Your task to perform on an android device: Open Chrome and go to settings Image 0: 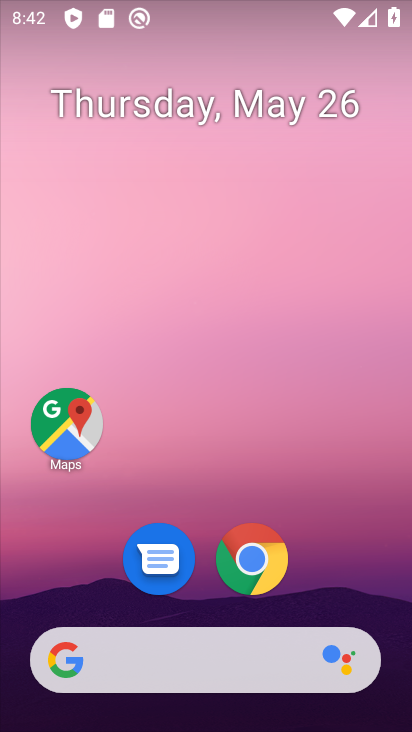
Step 0: click (253, 559)
Your task to perform on an android device: Open Chrome and go to settings Image 1: 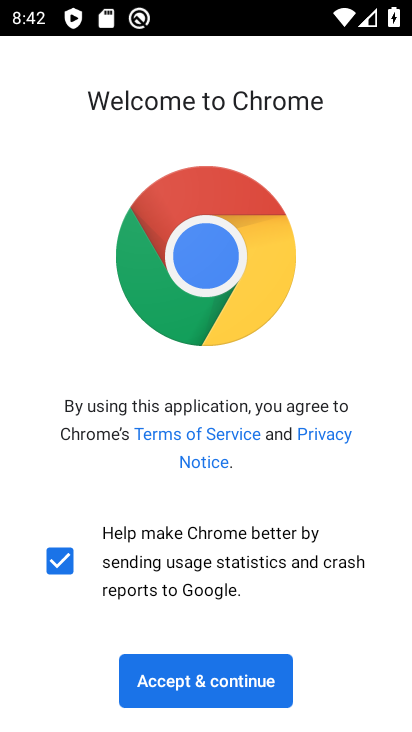
Step 1: click (234, 695)
Your task to perform on an android device: Open Chrome and go to settings Image 2: 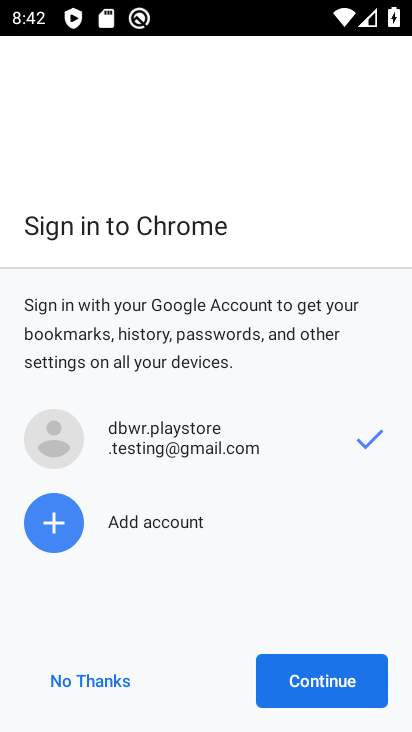
Step 2: click (289, 686)
Your task to perform on an android device: Open Chrome and go to settings Image 3: 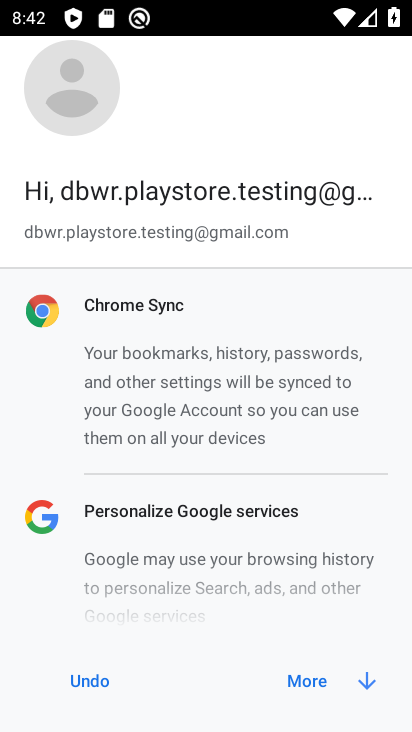
Step 3: click (289, 686)
Your task to perform on an android device: Open Chrome and go to settings Image 4: 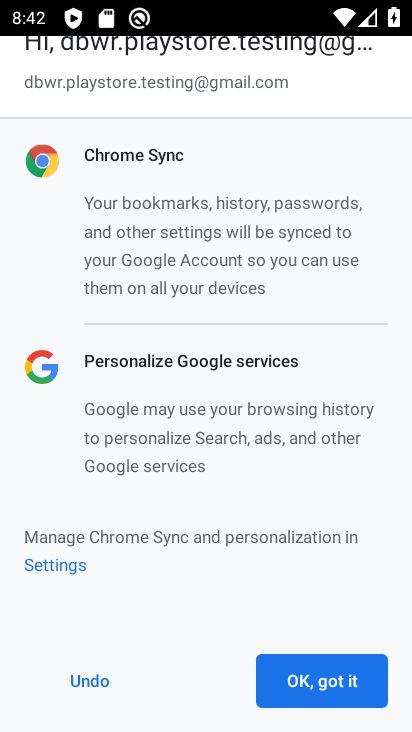
Step 4: click (289, 686)
Your task to perform on an android device: Open Chrome and go to settings Image 5: 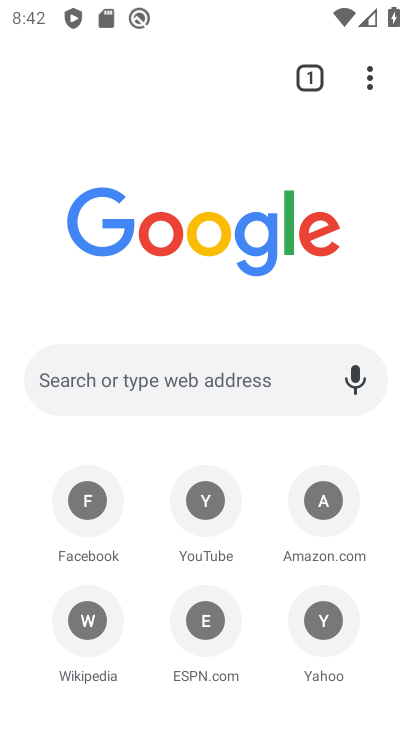
Step 5: click (362, 77)
Your task to perform on an android device: Open Chrome and go to settings Image 6: 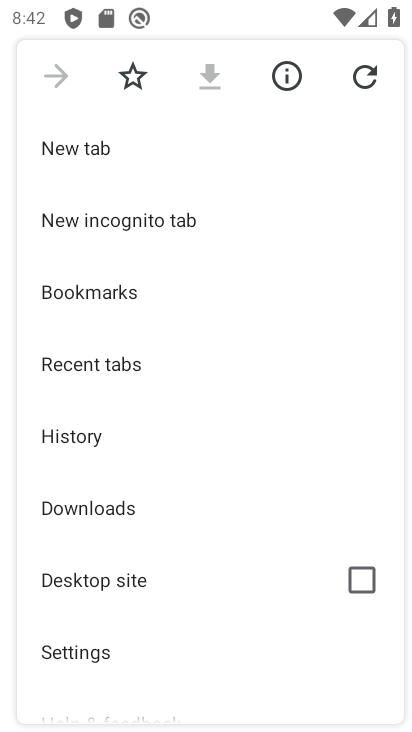
Step 6: drag from (110, 627) to (226, 347)
Your task to perform on an android device: Open Chrome and go to settings Image 7: 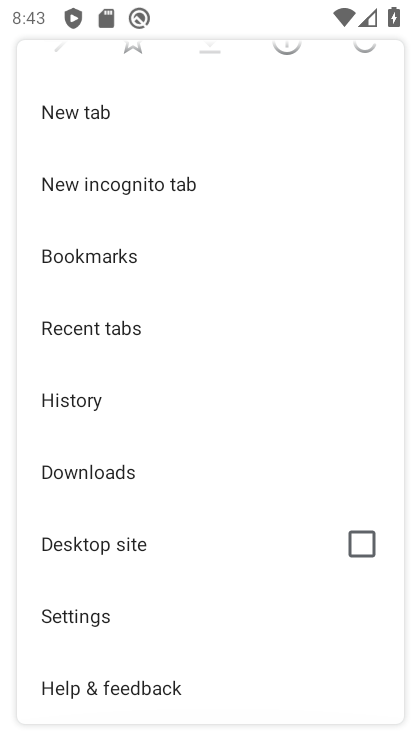
Step 7: click (95, 612)
Your task to perform on an android device: Open Chrome and go to settings Image 8: 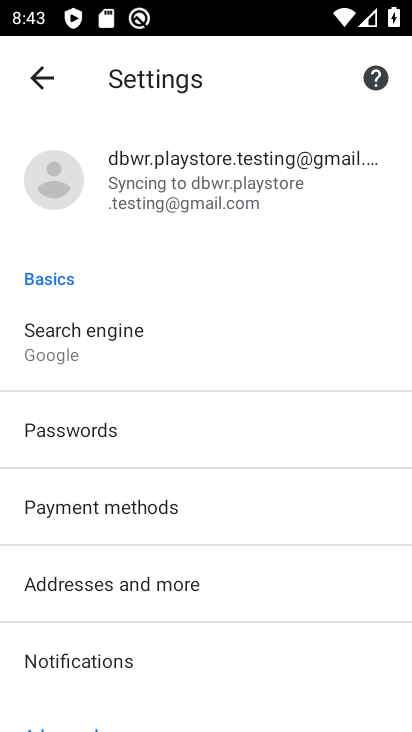
Step 8: task complete